Your task to perform on an android device: find snoozed emails in the gmail app Image 0: 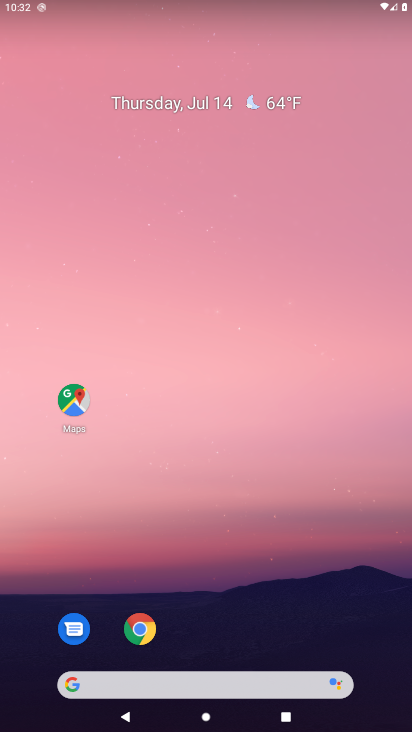
Step 0: drag from (197, 667) to (213, 306)
Your task to perform on an android device: find snoozed emails in the gmail app Image 1: 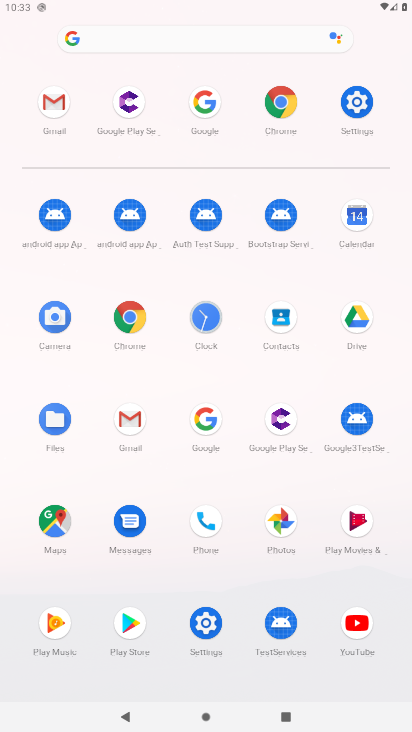
Step 1: click (135, 418)
Your task to perform on an android device: find snoozed emails in the gmail app Image 2: 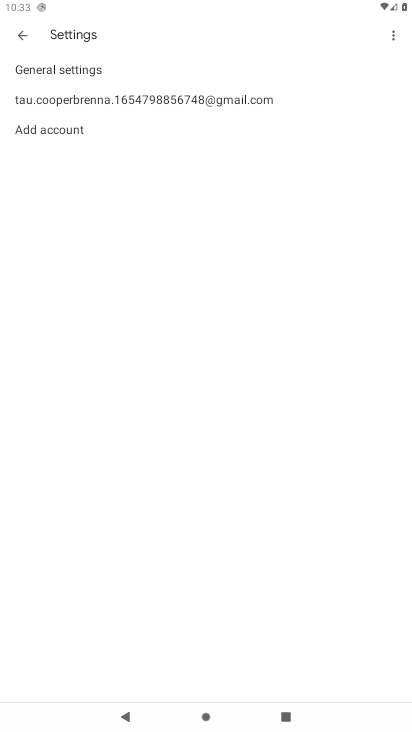
Step 2: click (18, 36)
Your task to perform on an android device: find snoozed emails in the gmail app Image 3: 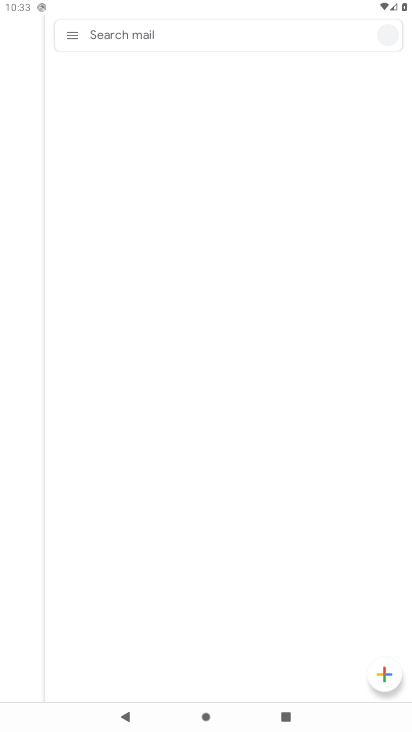
Step 3: click (18, 36)
Your task to perform on an android device: find snoozed emails in the gmail app Image 4: 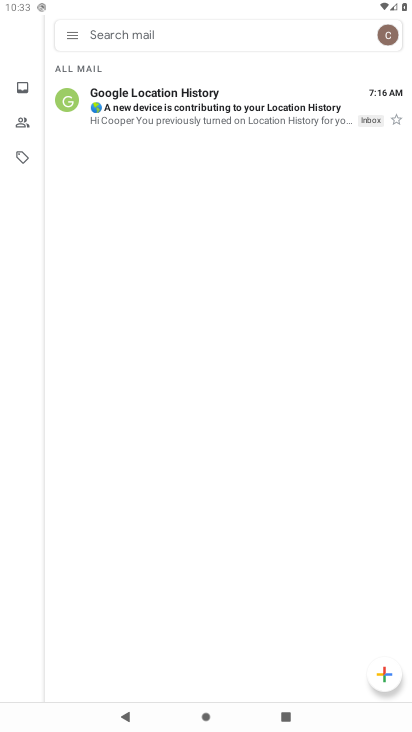
Step 4: click (69, 36)
Your task to perform on an android device: find snoozed emails in the gmail app Image 5: 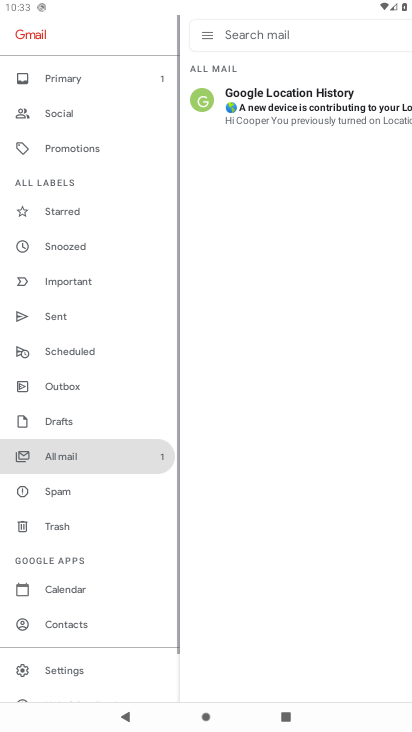
Step 5: click (67, 248)
Your task to perform on an android device: find snoozed emails in the gmail app Image 6: 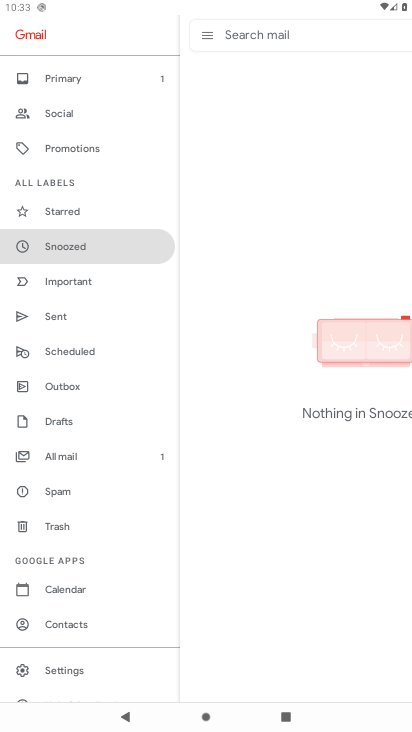
Step 6: task complete